Your task to perform on an android device: Open sound settings Image 0: 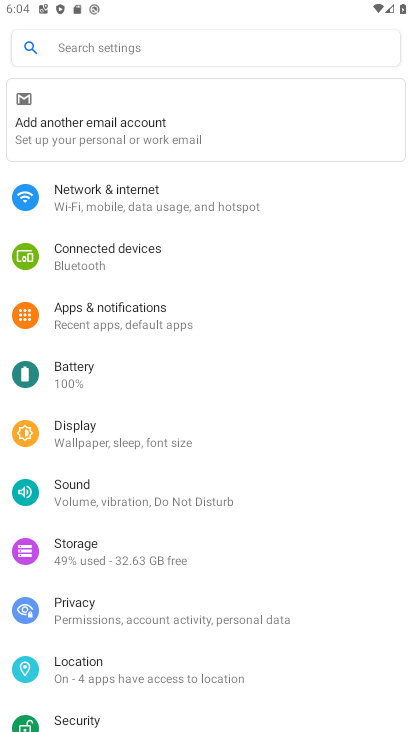
Step 0: press home button
Your task to perform on an android device: Open sound settings Image 1: 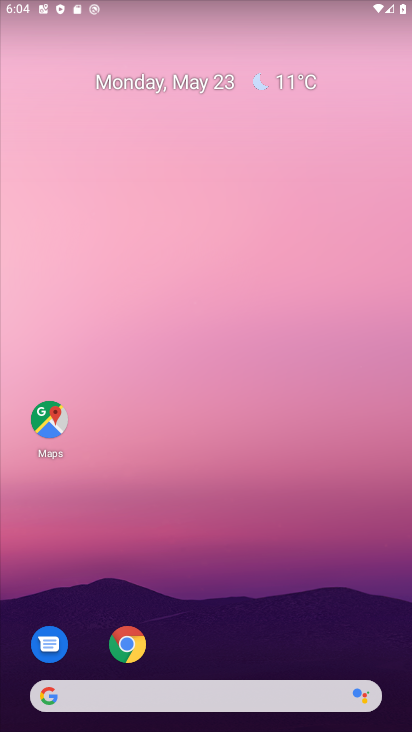
Step 1: drag from (257, 621) to (210, 168)
Your task to perform on an android device: Open sound settings Image 2: 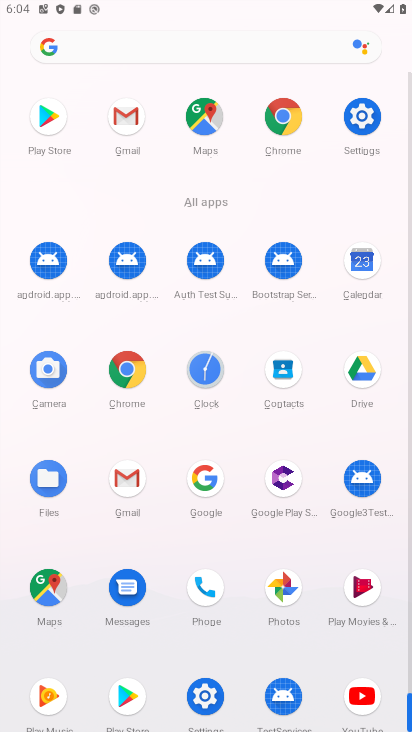
Step 2: click (360, 119)
Your task to perform on an android device: Open sound settings Image 3: 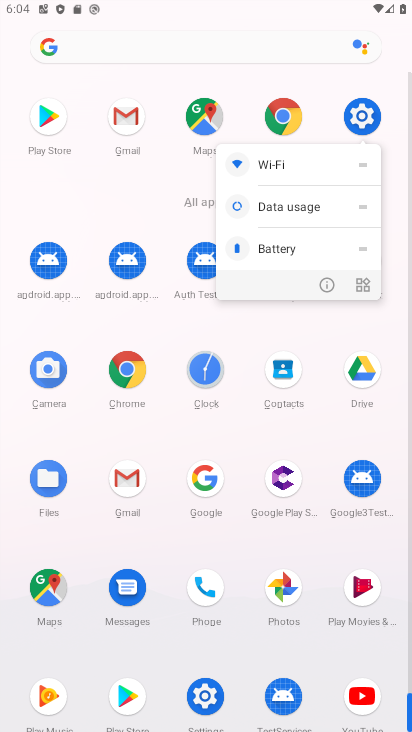
Step 3: click (360, 119)
Your task to perform on an android device: Open sound settings Image 4: 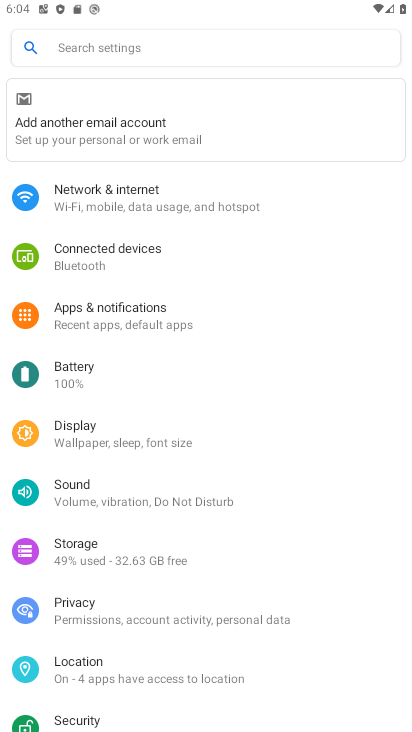
Step 4: click (108, 513)
Your task to perform on an android device: Open sound settings Image 5: 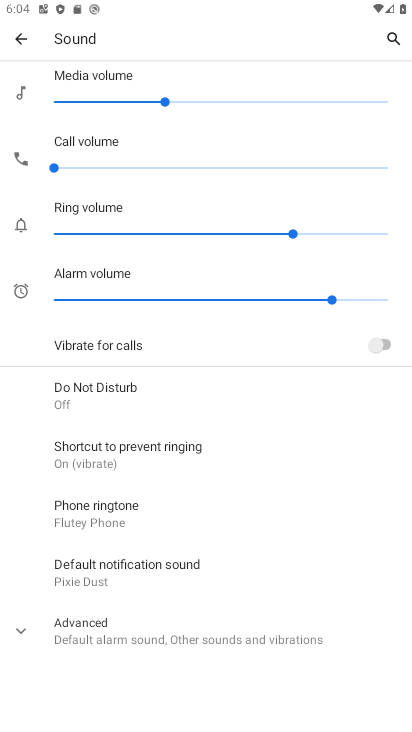
Step 5: task complete